Your task to perform on an android device: Search for seafood restaurants on Google Maps Image 0: 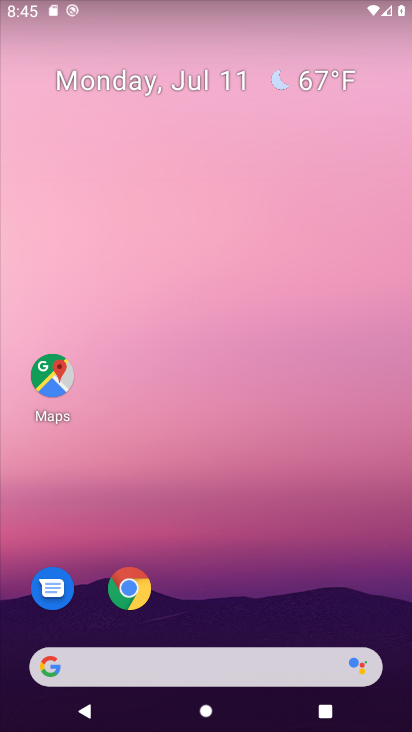
Step 0: click (59, 370)
Your task to perform on an android device: Search for seafood restaurants on Google Maps Image 1: 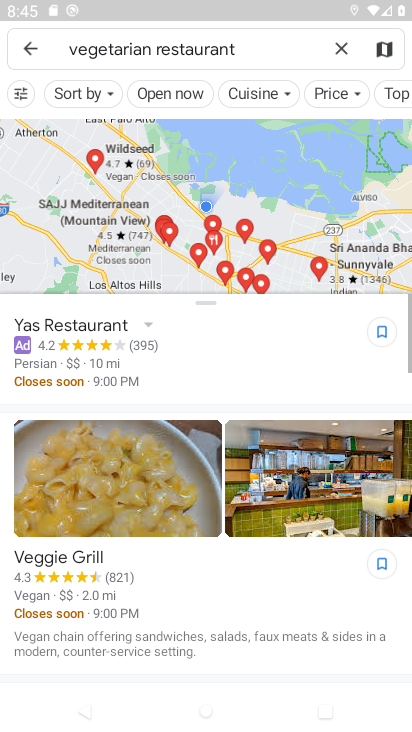
Step 1: click (346, 48)
Your task to perform on an android device: Search for seafood restaurants on Google Maps Image 2: 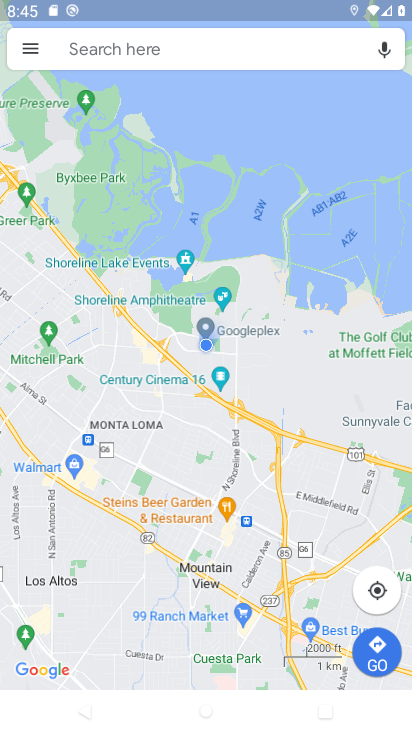
Step 2: click (220, 42)
Your task to perform on an android device: Search for seafood restaurants on Google Maps Image 3: 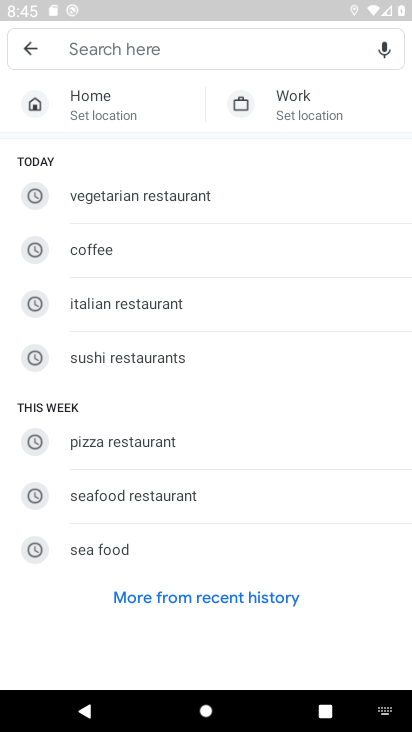
Step 3: type "seafood restaurants"
Your task to perform on an android device: Search for seafood restaurants on Google Maps Image 4: 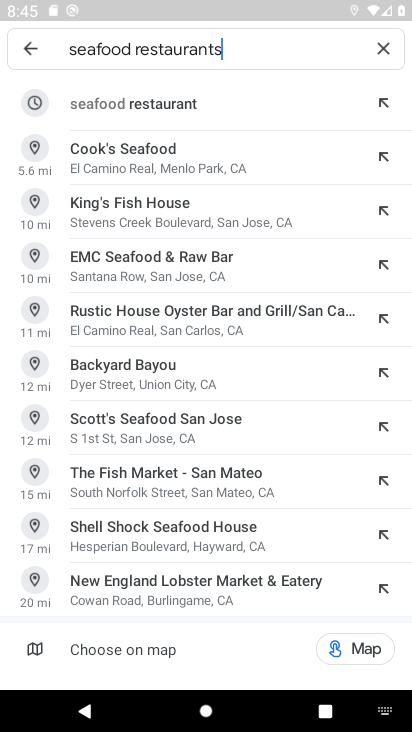
Step 4: click (128, 103)
Your task to perform on an android device: Search for seafood restaurants on Google Maps Image 5: 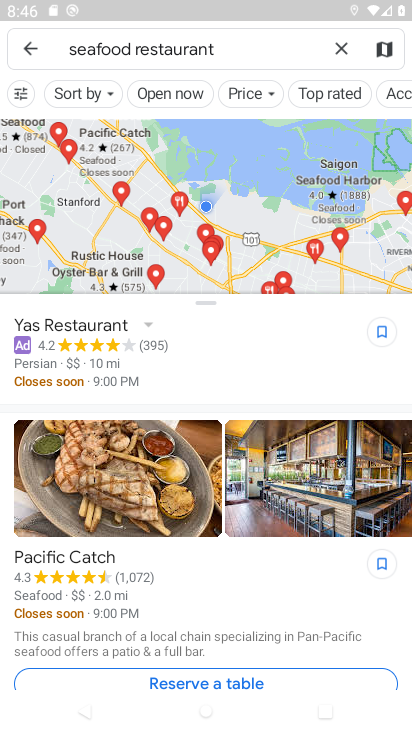
Step 5: task complete